Your task to perform on an android device: open device folders in google photos Image 0: 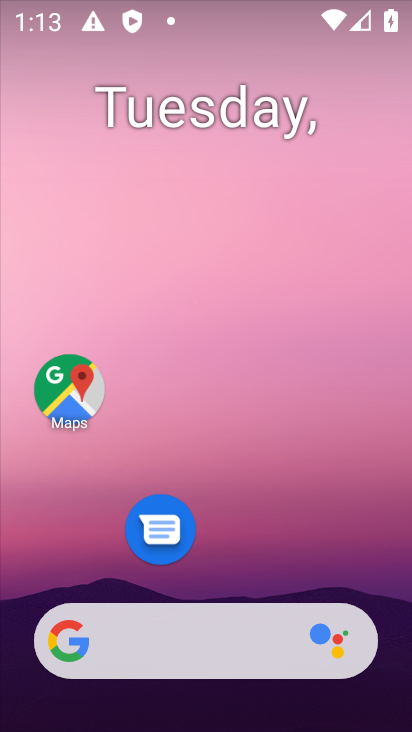
Step 0: drag from (308, 582) to (306, 84)
Your task to perform on an android device: open device folders in google photos Image 1: 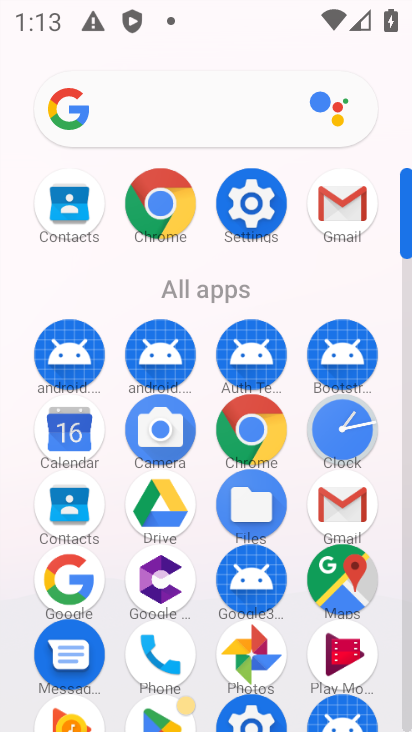
Step 1: click (239, 671)
Your task to perform on an android device: open device folders in google photos Image 2: 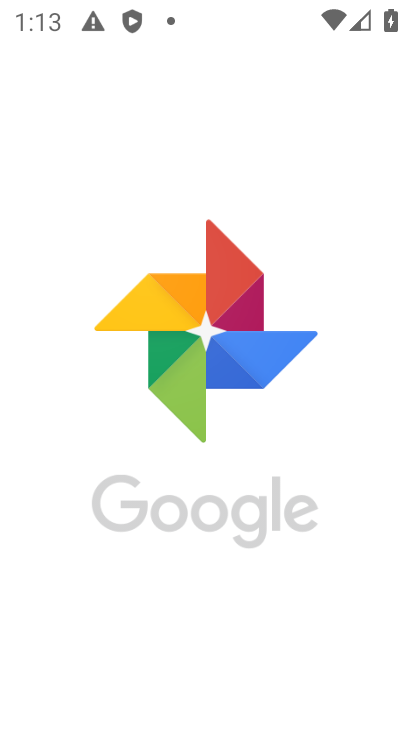
Step 2: task complete